Your task to perform on an android device: change text size in settings app Image 0: 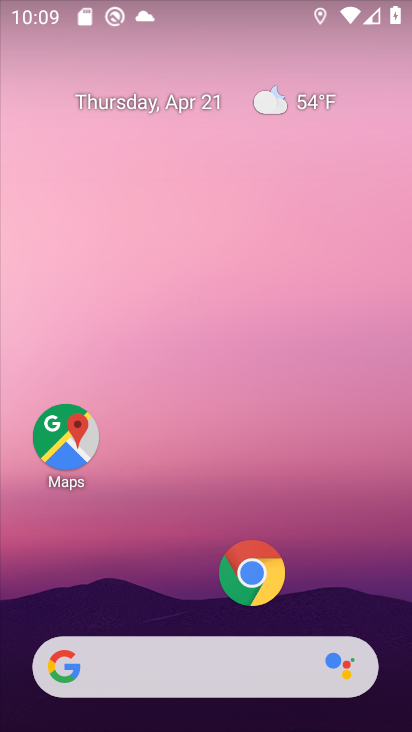
Step 0: drag from (180, 592) to (181, 100)
Your task to perform on an android device: change text size in settings app Image 1: 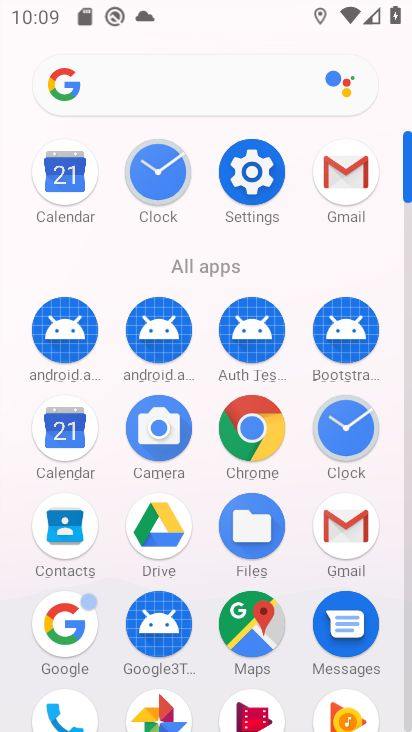
Step 1: click (245, 160)
Your task to perform on an android device: change text size in settings app Image 2: 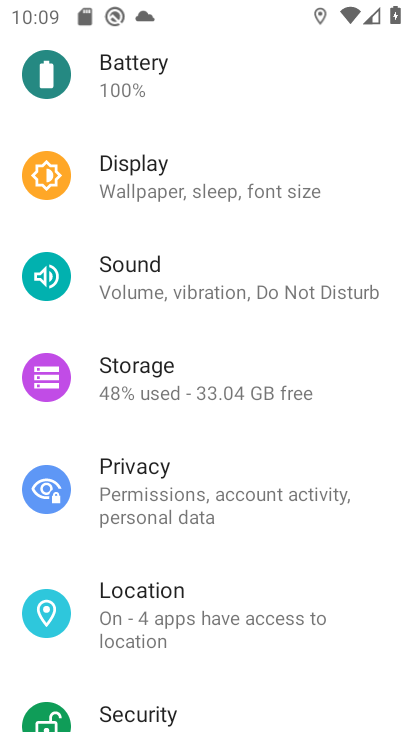
Step 2: click (167, 205)
Your task to perform on an android device: change text size in settings app Image 3: 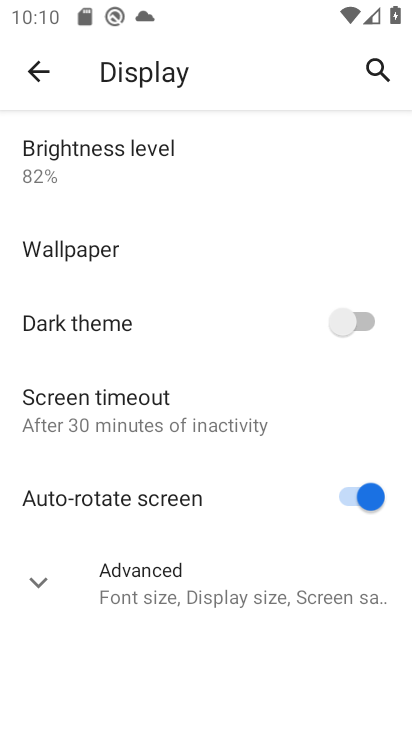
Step 3: click (146, 576)
Your task to perform on an android device: change text size in settings app Image 4: 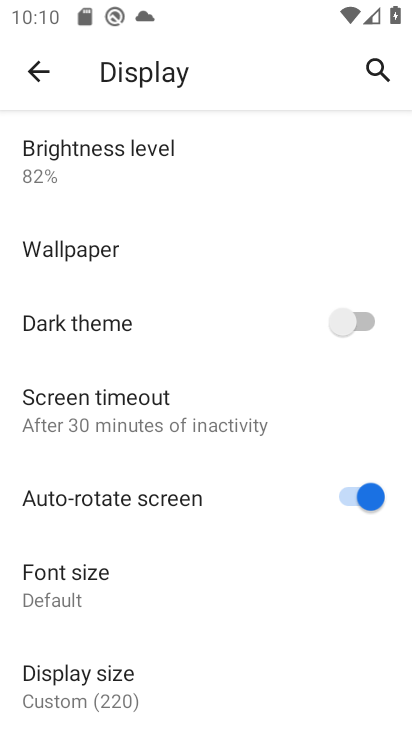
Step 4: click (101, 599)
Your task to perform on an android device: change text size in settings app Image 5: 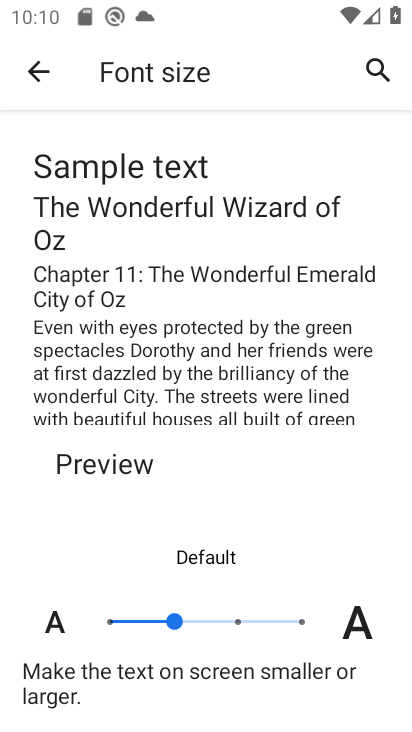
Step 5: click (114, 620)
Your task to perform on an android device: change text size in settings app Image 6: 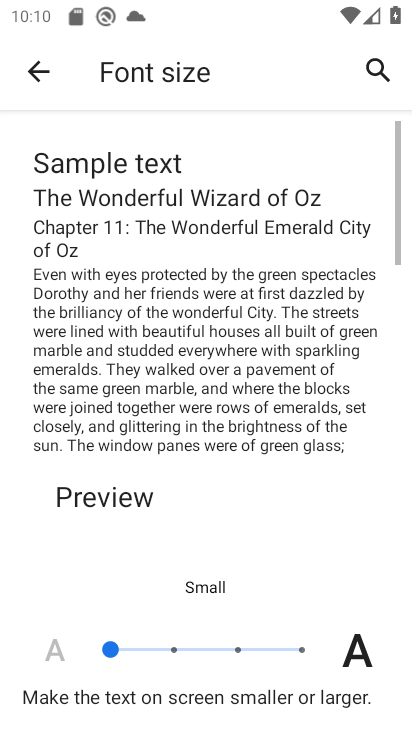
Step 6: task complete